Your task to perform on an android device: refresh tabs in the chrome app Image 0: 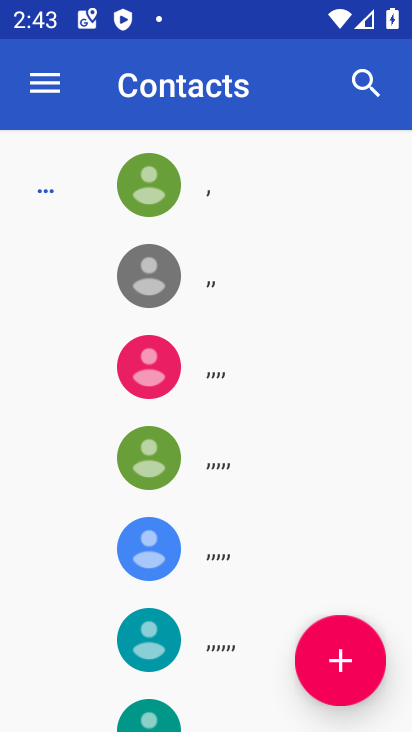
Step 0: press home button
Your task to perform on an android device: refresh tabs in the chrome app Image 1: 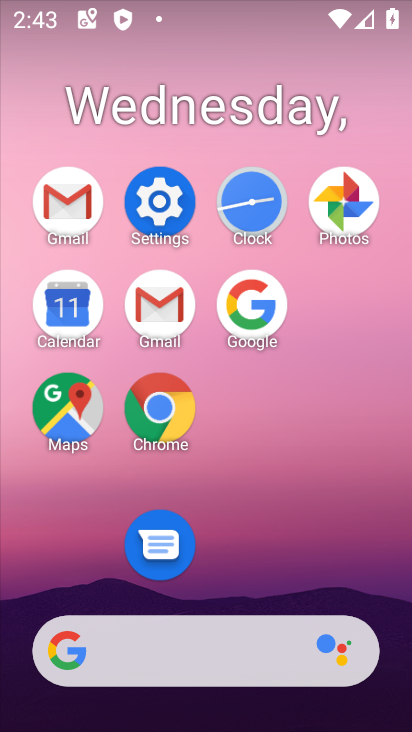
Step 1: click (154, 424)
Your task to perform on an android device: refresh tabs in the chrome app Image 2: 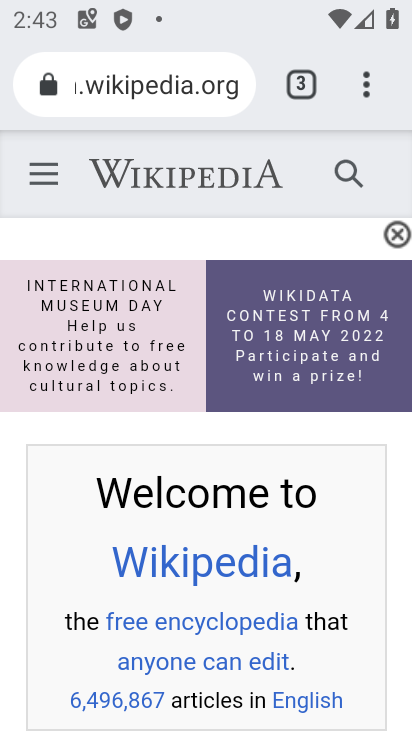
Step 2: click (364, 84)
Your task to perform on an android device: refresh tabs in the chrome app Image 3: 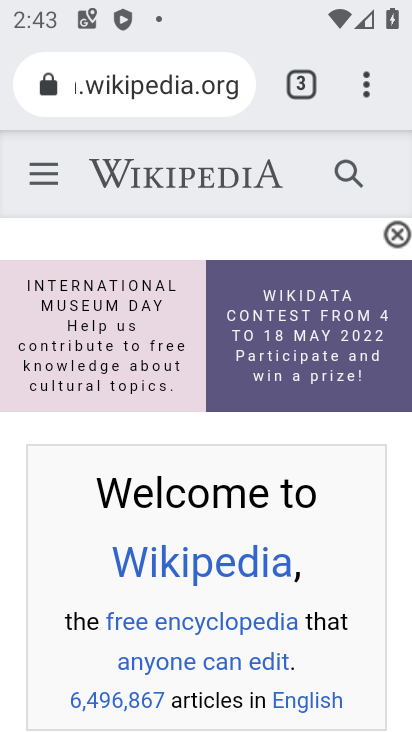
Step 3: click (361, 88)
Your task to perform on an android device: refresh tabs in the chrome app Image 4: 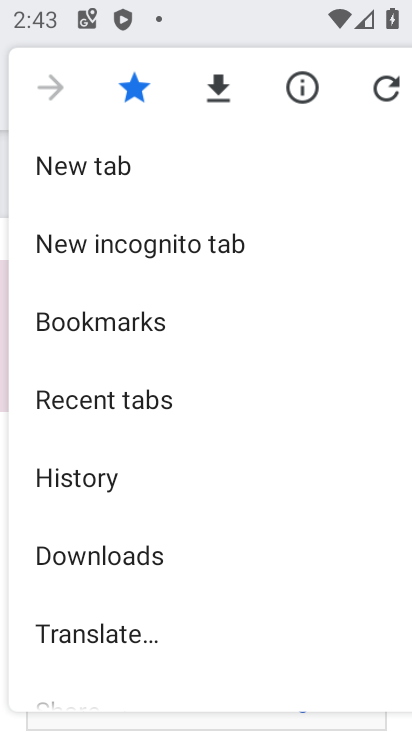
Step 4: click (378, 91)
Your task to perform on an android device: refresh tabs in the chrome app Image 5: 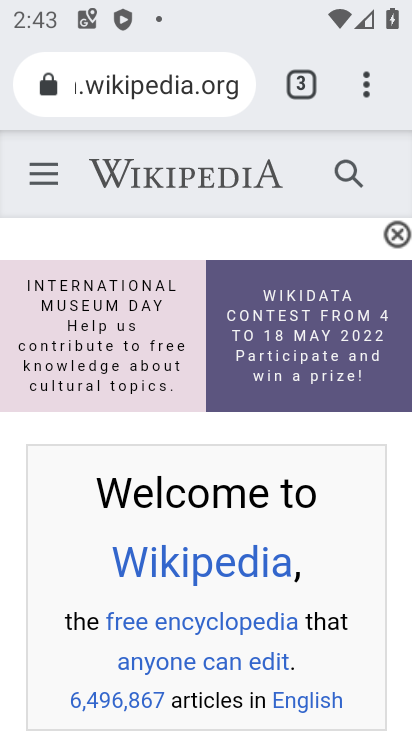
Step 5: task complete